Your task to perform on an android device: add a contact Image 0: 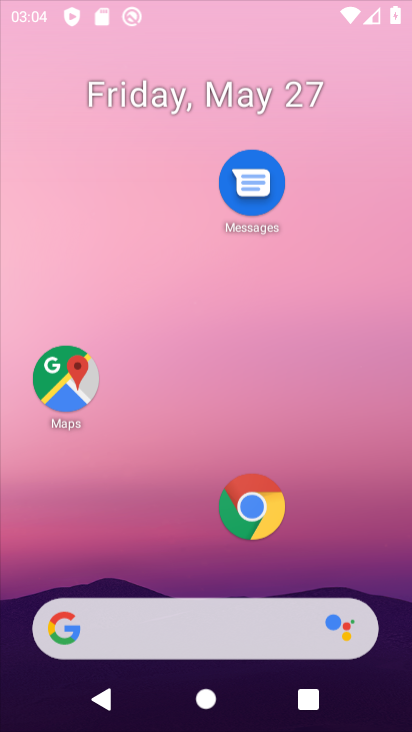
Step 0: click (227, 286)
Your task to perform on an android device: add a contact Image 1: 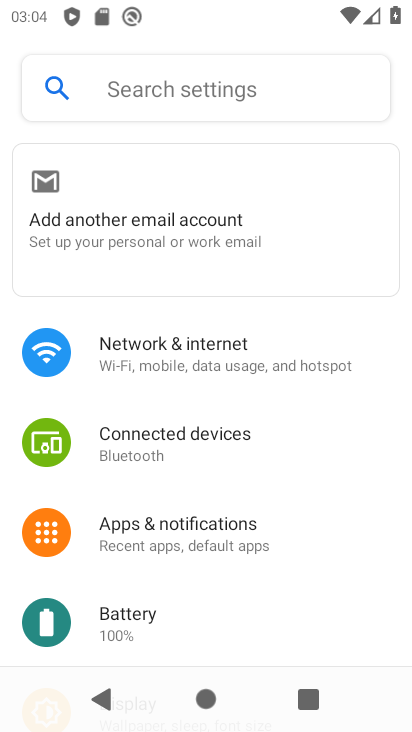
Step 1: press home button
Your task to perform on an android device: add a contact Image 2: 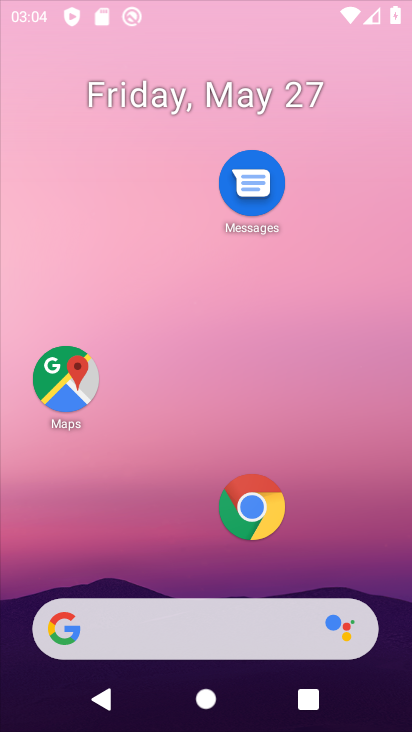
Step 2: drag from (180, 593) to (197, 125)
Your task to perform on an android device: add a contact Image 3: 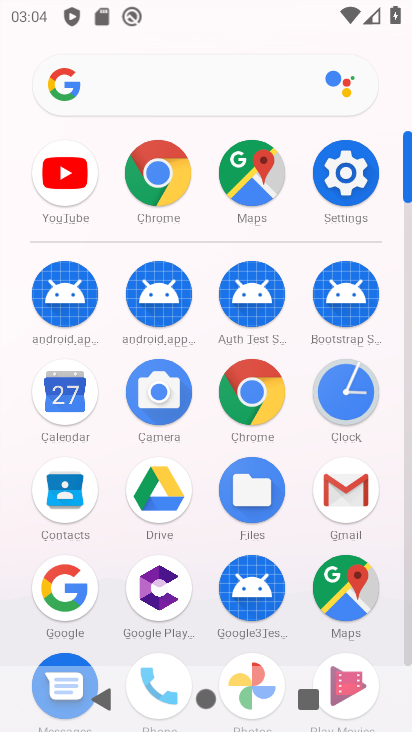
Step 3: click (69, 490)
Your task to perform on an android device: add a contact Image 4: 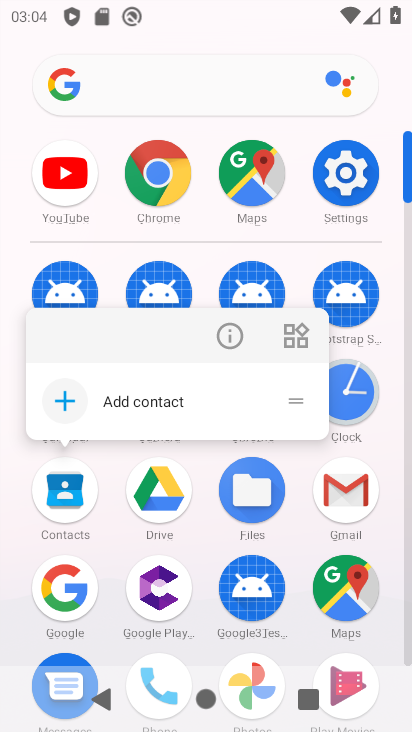
Step 4: click (229, 337)
Your task to perform on an android device: add a contact Image 5: 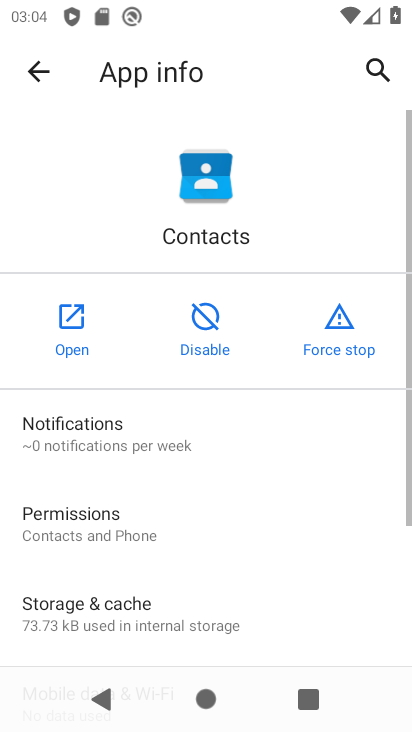
Step 5: click (78, 349)
Your task to perform on an android device: add a contact Image 6: 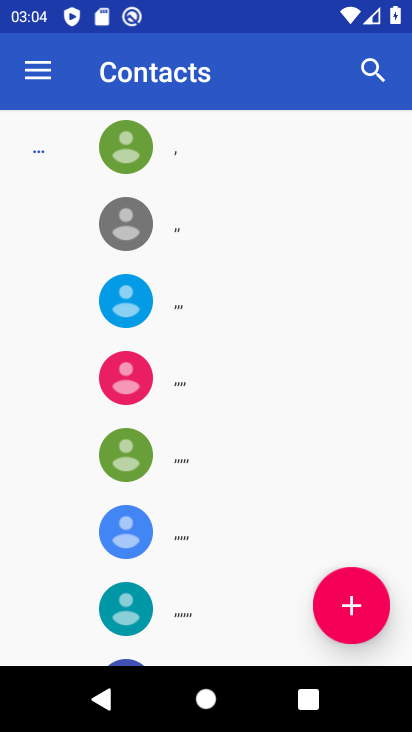
Step 6: click (381, 599)
Your task to perform on an android device: add a contact Image 7: 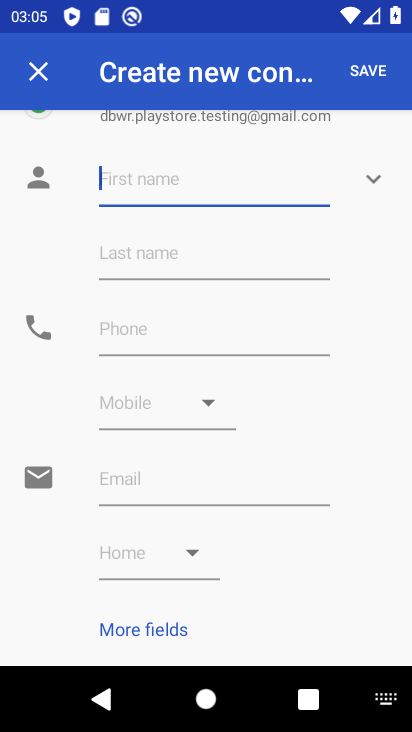
Step 7: type "nhj"
Your task to perform on an android device: add a contact Image 8: 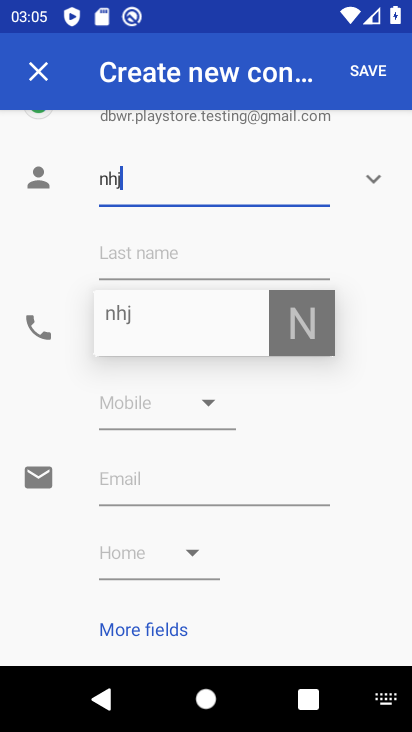
Step 8: type "m"
Your task to perform on an android device: add a contact Image 9: 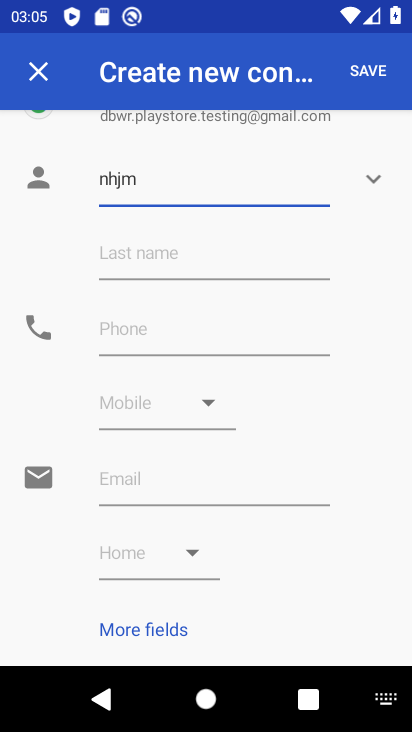
Step 9: click (361, 80)
Your task to perform on an android device: add a contact Image 10: 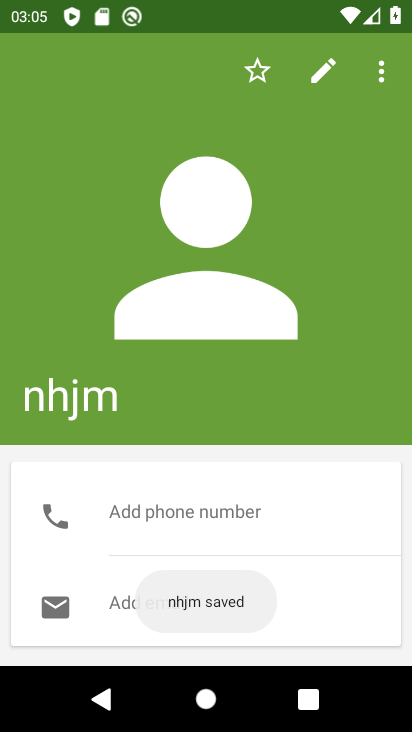
Step 10: task complete